Your task to perform on an android device: Go to ESPN.com Image 0: 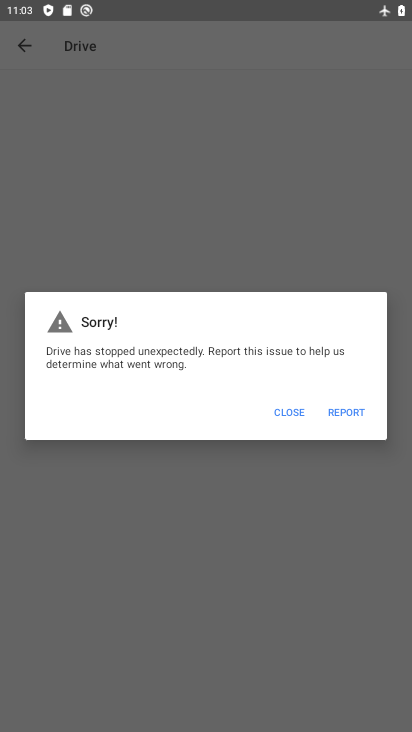
Step 0: press home button
Your task to perform on an android device: Go to ESPN.com Image 1: 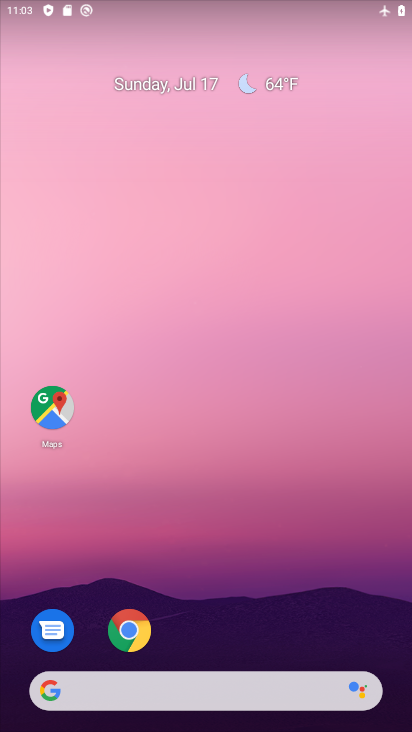
Step 1: click (129, 630)
Your task to perform on an android device: Go to ESPN.com Image 2: 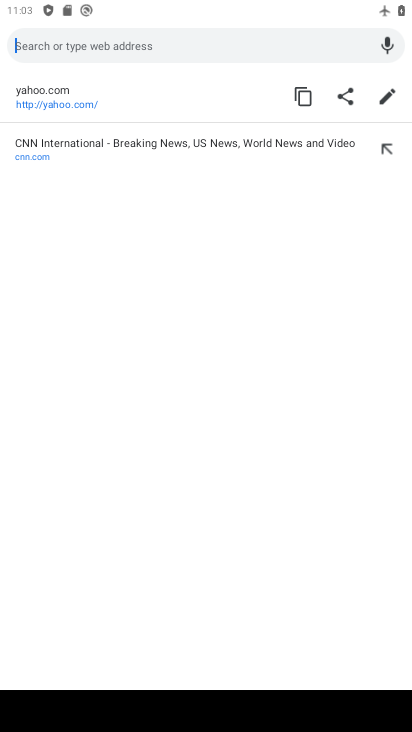
Step 2: type "ESPN.com"
Your task to perform on an android device: Go to ESPN.com Image 3: 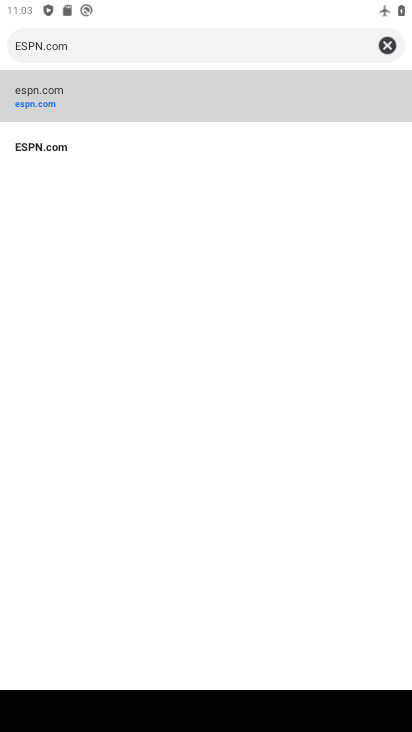
Step 3: click (34, 95)
Your task to perform on an android device: Go to ESPN.com Image 4: 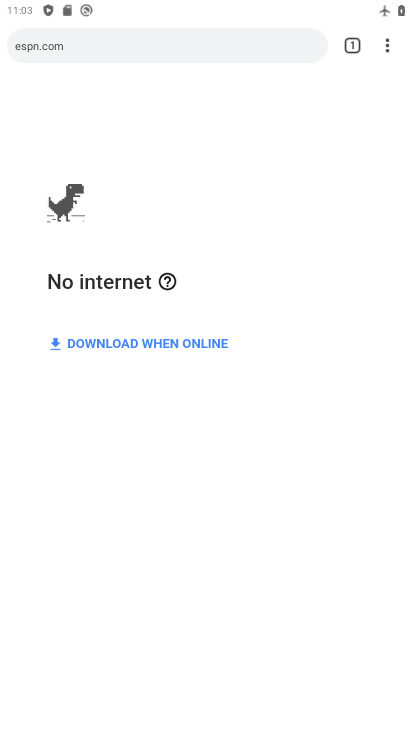
Step 4: task complete